Your task to perform on an android device: Open the web browser Image 0: 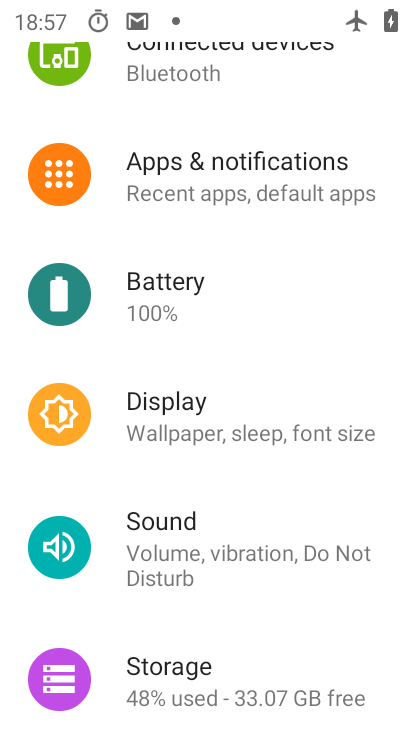
Step 0: press home button
Your task to perform on an android device: Open the web browser Image 1: 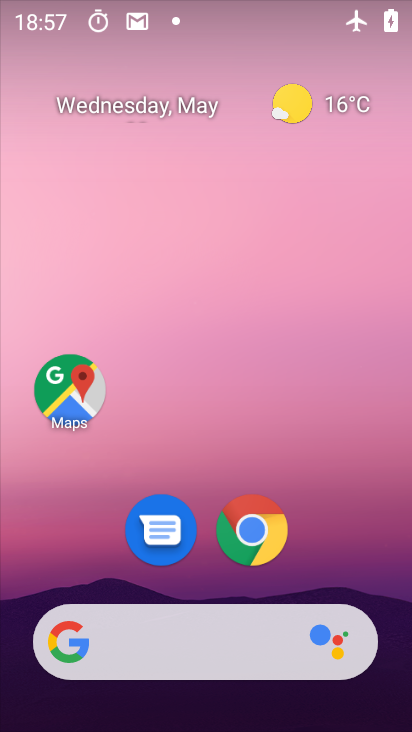
Step 1: click (244, 531)
Your task to perform on an android device: Open the web browser Image 2: 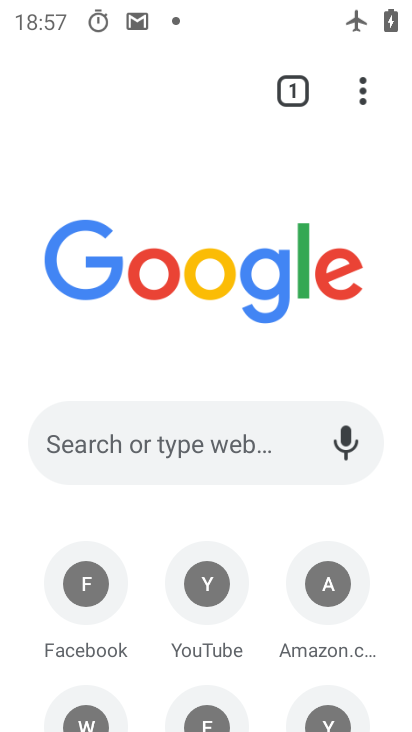
Step 2: click (161, 435)
Your task to perform on an android device: Open the web browser Image 3: 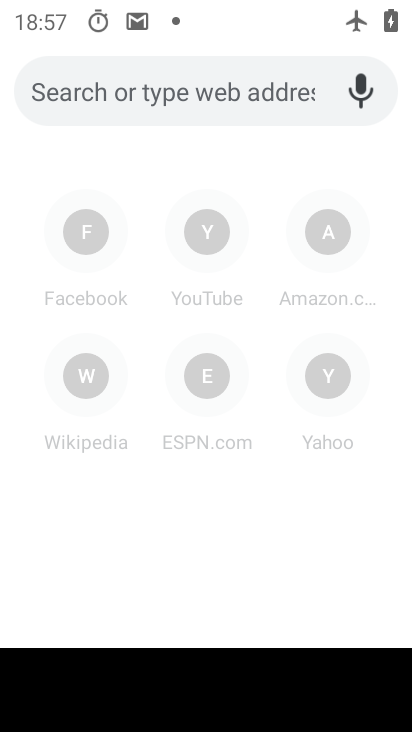
Step 3: task complete